Your task to perform on an android device: change timer sound Image 0: 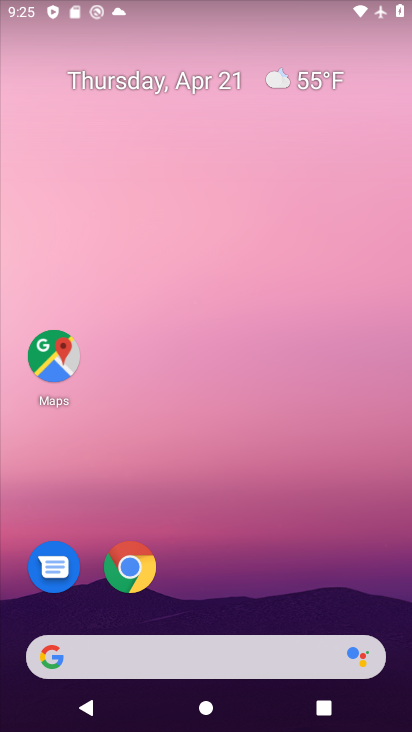
Step 0: drag from (379, 624) to (284, 194)
Your task to perform on an android device: change timer sound Image 1: 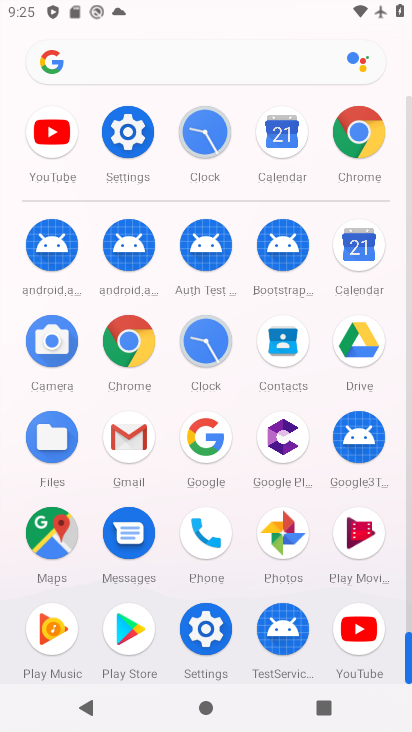
Step 1: click (207, 337)
Your task to perform on an android device: change timer sound Image 2: 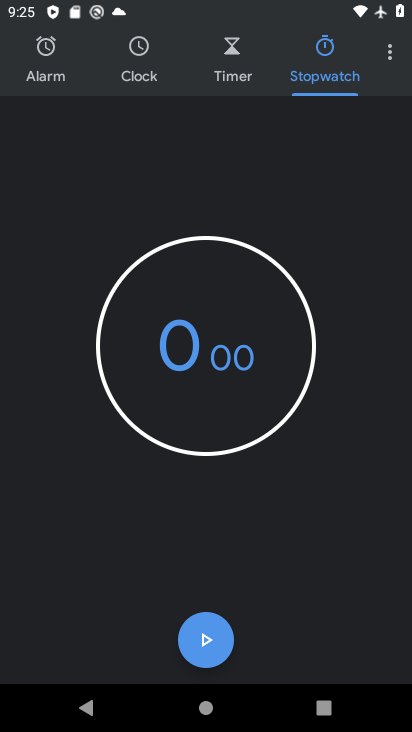
Step 2: click (389, 53)
Your task to perform on an android device: change timer sound Image 3: 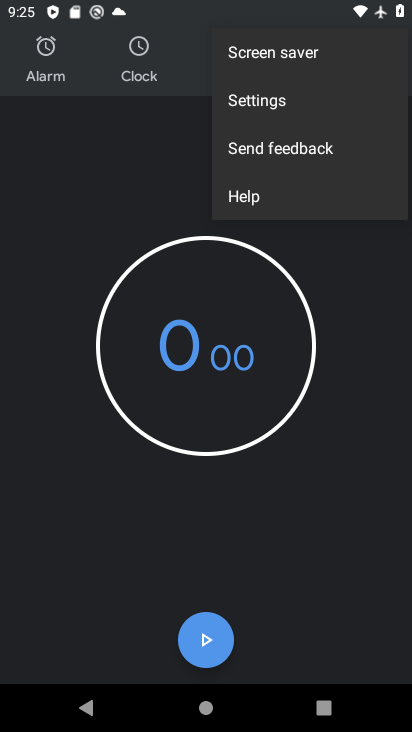
Step 3: click (263, 96)
Your task to perform on an android device: change timer sound Image 4: 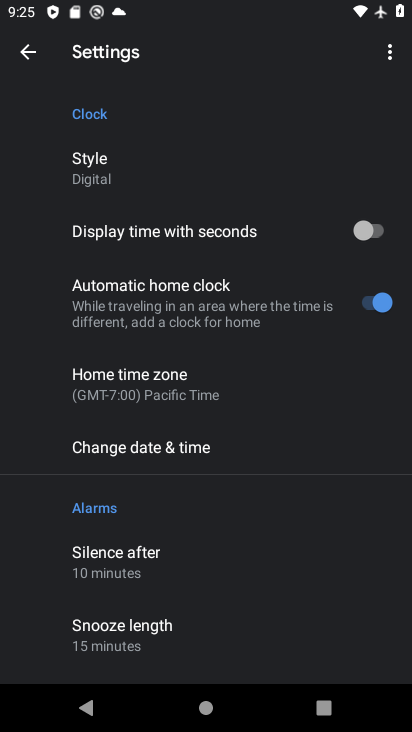
Step 4: drag from (311, 567) to (333, 238)
Your task to perform on an android device: change timer sound Image 5: 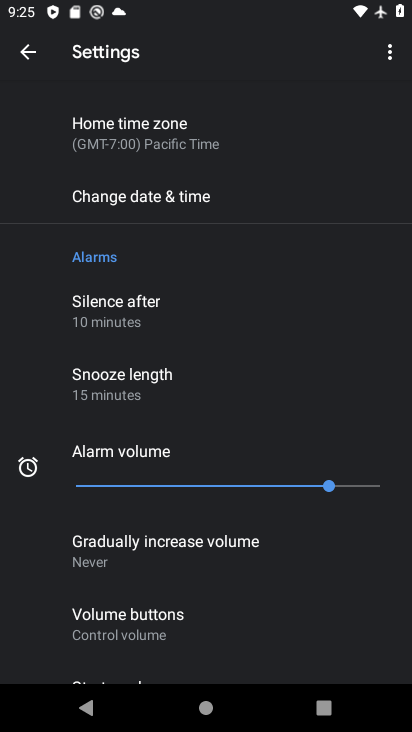
Step 5: drag from (310, 574) to (344, 247)
Your task to perform on an android device: change timer sound Image 6: 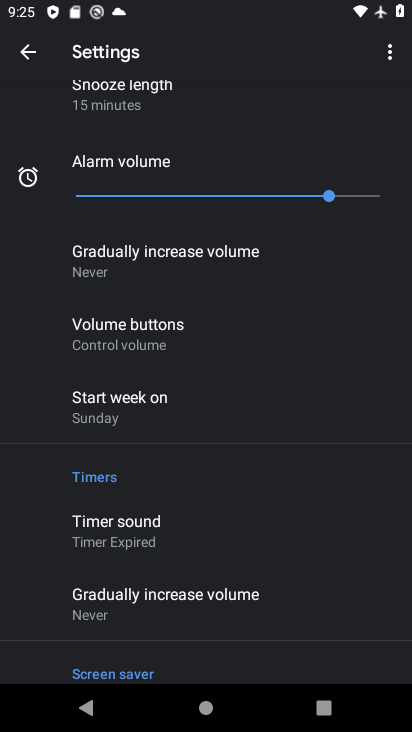
Step 6: click (116, 532)
Your task to perform on an android device: change timer sound Image 7: 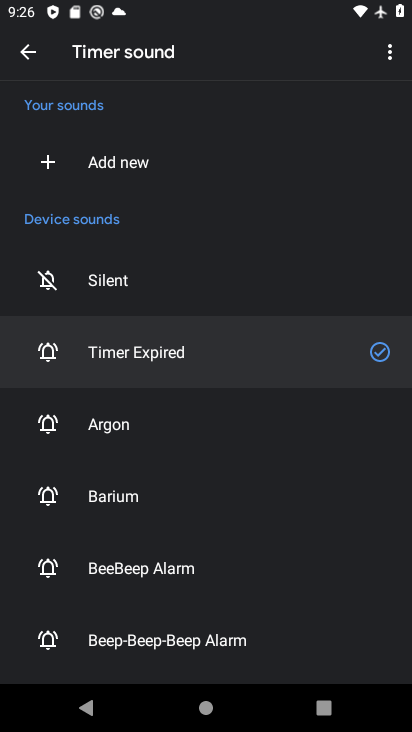
Step 7: click (144, 564)
Your task to perform on an android device: change timer sound Image 8: 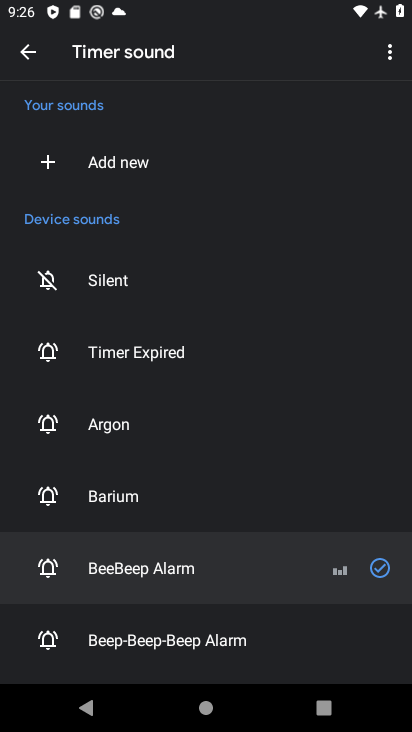
Step 8: task complete